Your task to perform on an android device: Go to location settings Image 0: 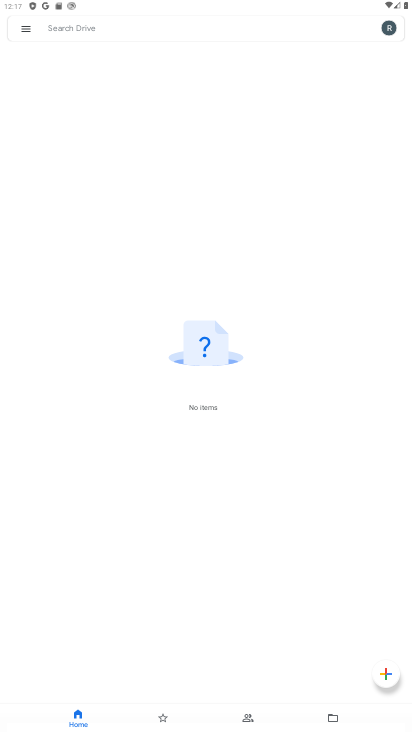
Step 0: press home button
Your task to perform on an android device: Go to location settings Image 1: 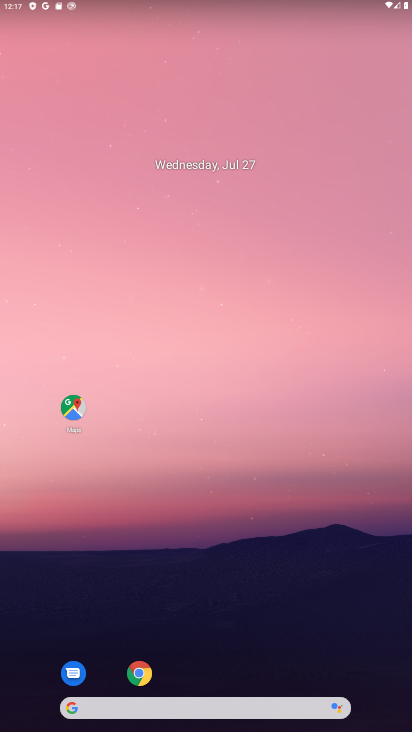
Step 1: drag from (257, 699) to (245, 0)
Your task to perform on an android device: Go to location settings Image 2: 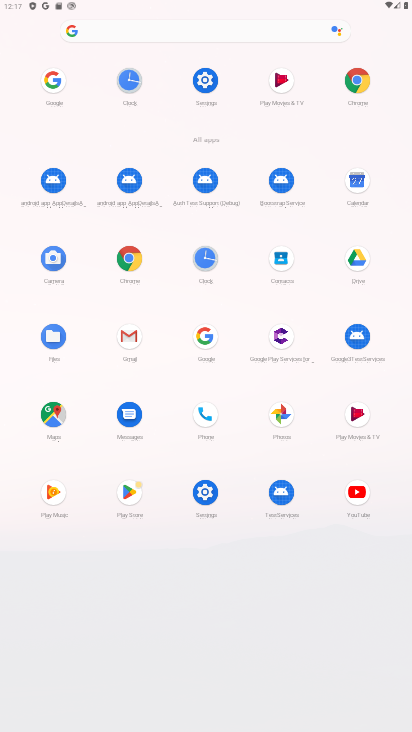
Step 2: click (203, 90)
Your task to perform on an android device: Go to location settings Image 3: 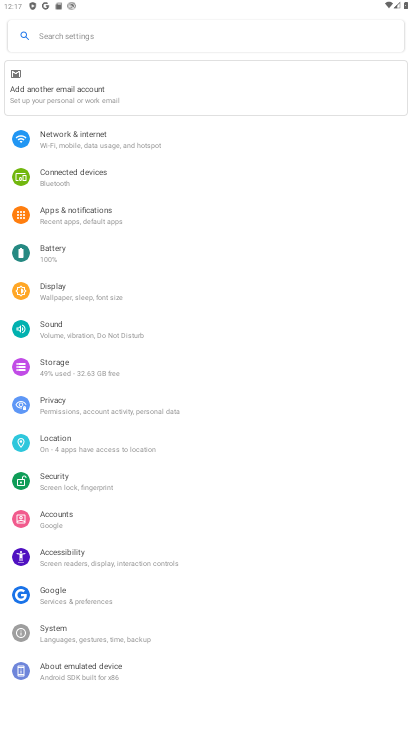
Step 3: click (66, 448)
Your task to perform on an android device: Go to location settings Image 4: 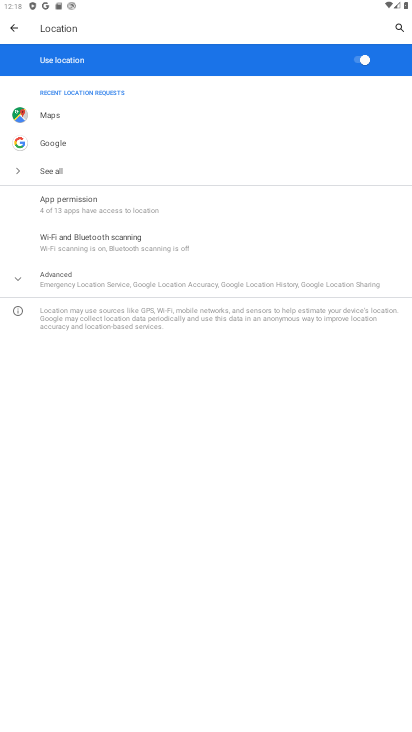
Step 4: task complete